Your task to perform on an android device: Open eBay Image 0: 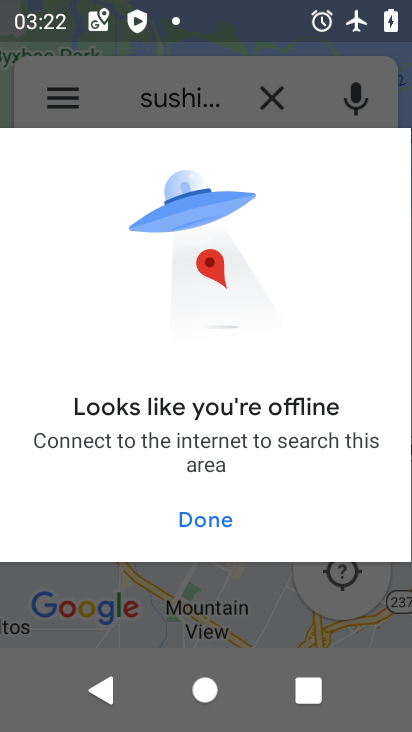
Step 0: press home button
Your task to perform on an android device: Open eBay Image 1: 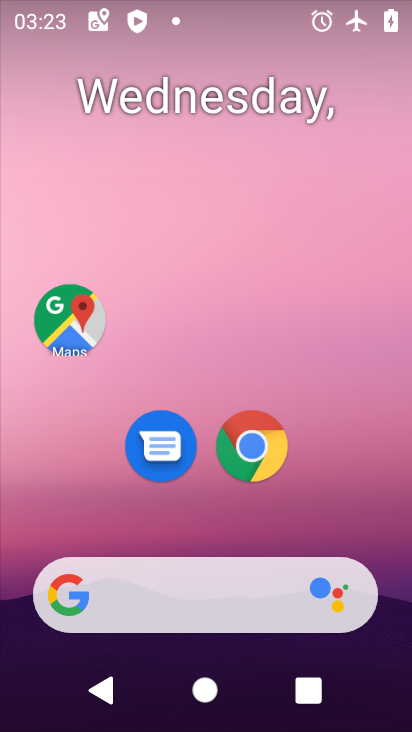
Step 1: click (234, 435)
Your task to perform on an android device: Open eBay Image 2: 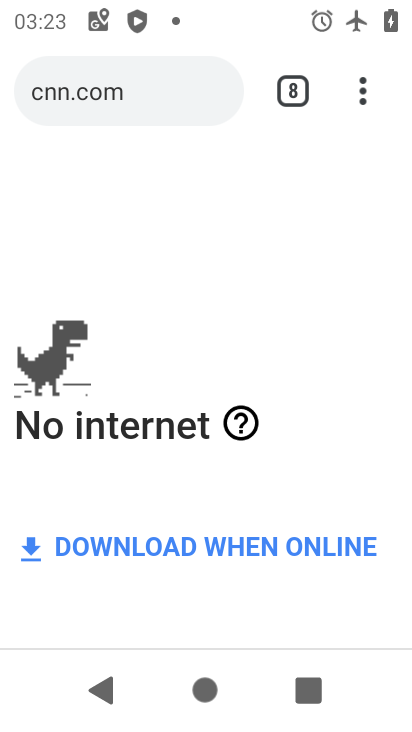
Step 2: click (299, 88)
Your task to perform on an android device: Open eBay Image 3: 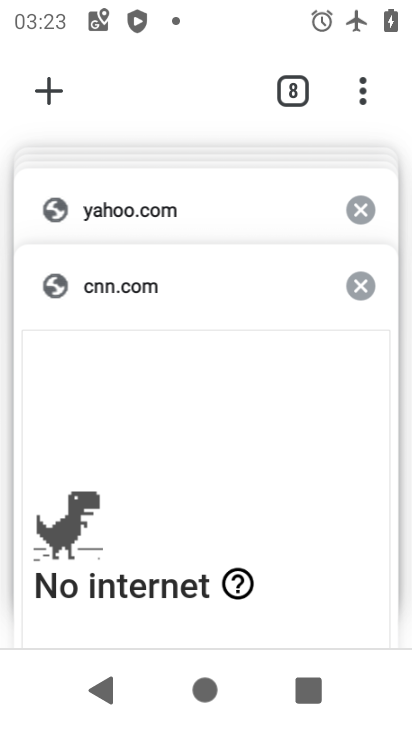
Step 3: drag from (210, 249) to (230, 475)
Your task to perform on an android device: Open eBay Image 4: 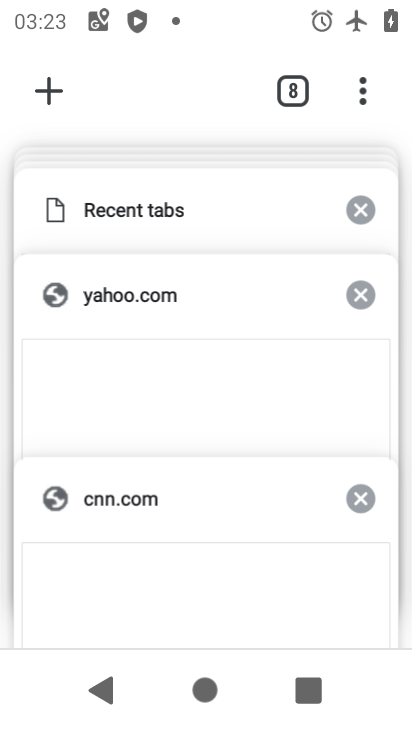
Step 4: drag from (185, 359) to (185, 478)
Your task to perform on an android device: Open eBay Image 5: 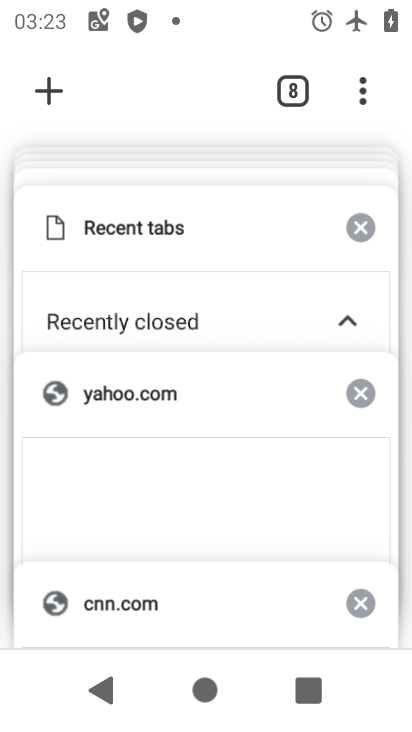
Step 5: drag from (126, 211) to (142, 387)
Your task to perform on an android device: Open eBay Image 6: 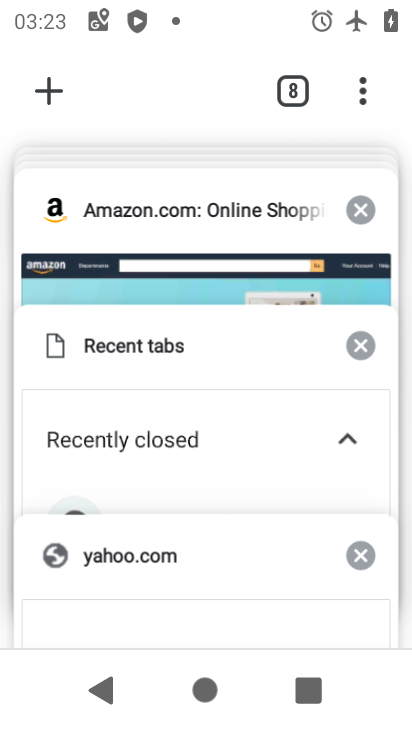
Step 6: drag from (142, 253) to (152, 330)
Your task to perform on an android device: Open eBay Image 7: 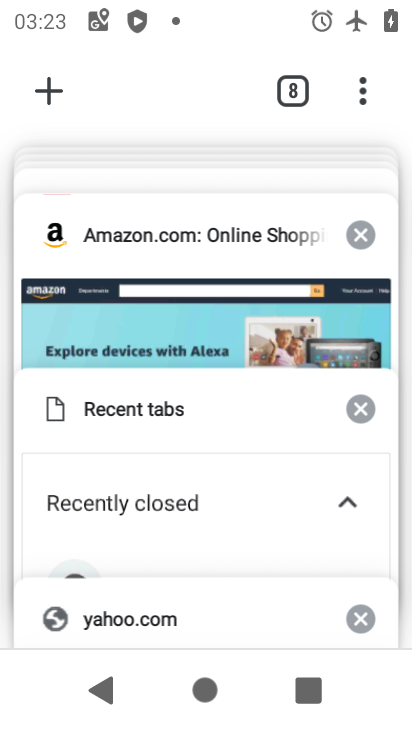
Step 7: drag from (126, 272) to (140, 339)
Your task to perform on an android device: Open eBay Image 8: 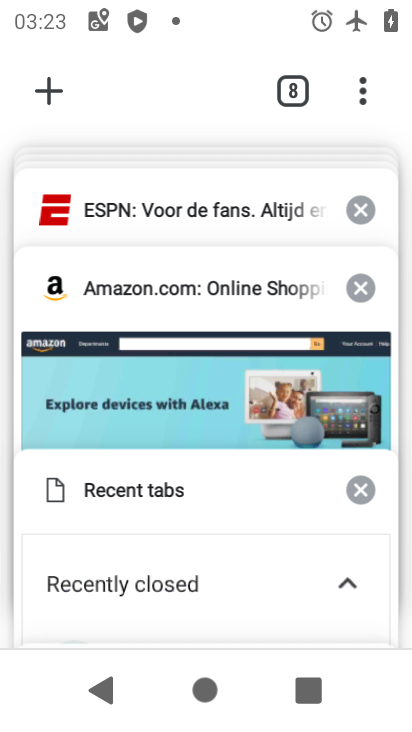
Step 8: drag from (121, 220) to (112, 412)
Your task to perform on an android device: Open eBay Image 9: 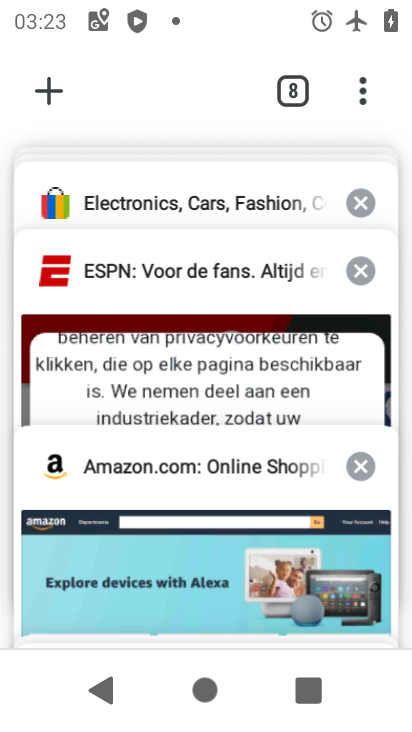
Step 9: drag from (56, 224) to (123, 436)
Your task to perform on an android device: Open eBay Image 10: 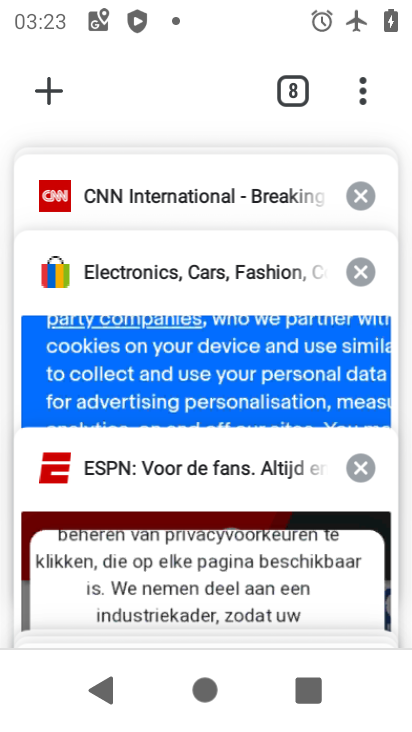
Step 10: click (127, 282)
Your task to perform on an android device: Open eBay Image 11: 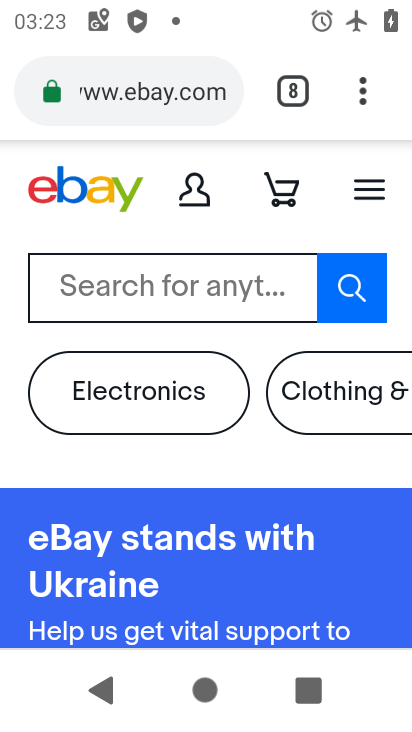
Step 11: task complete